Your task to perform on an android device: Go to Google Image 0: 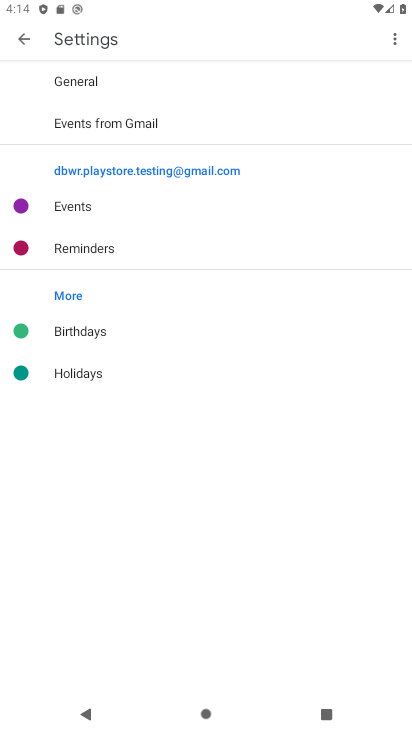
Step 0: press home button
Your task to perform on an android device: Go to Google Image 1: 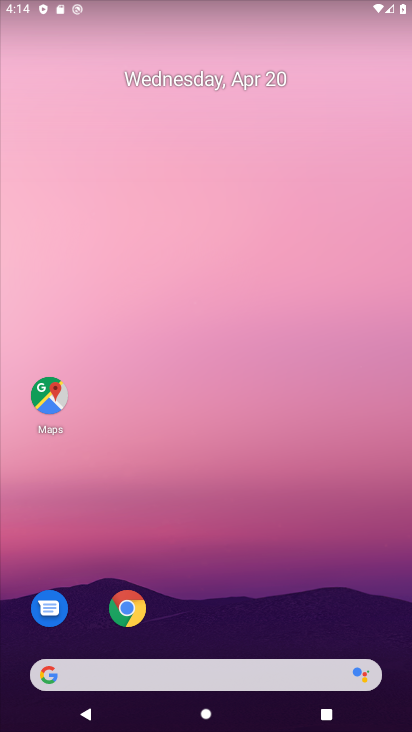
Step 1: drag from (339, 566) to (349, 231)
Your task to perform on an android device: Go to Google Image 2: 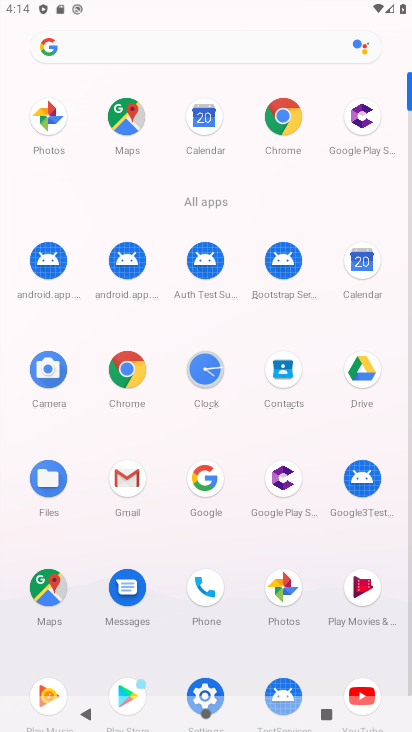
Step 2: click (204, 496)
Your task to perform on an android device: Go to Google Image 3: 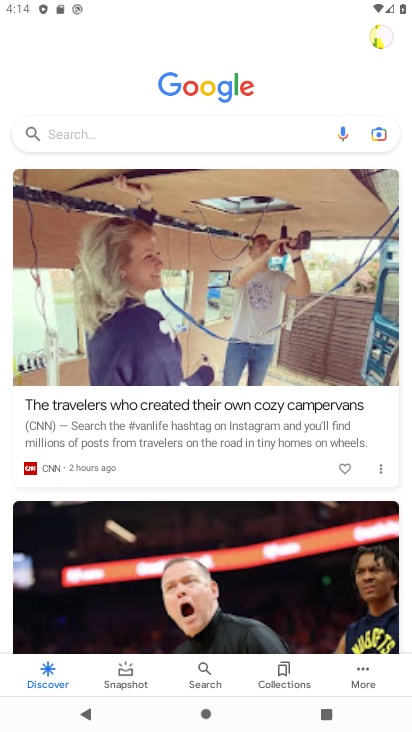
Step 3: task complete